Your task to perform on an android device: set the stopwatch Image 0: 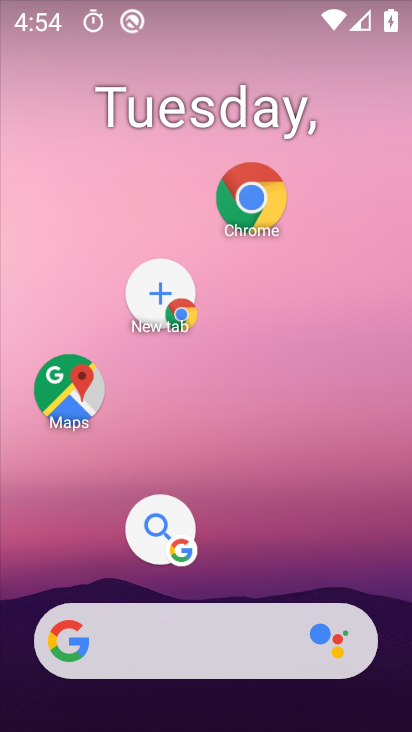
Step 0: drag from (219, 602) to (316, 244)
Your task to perform on an android device: set the stopwatch Image 1: 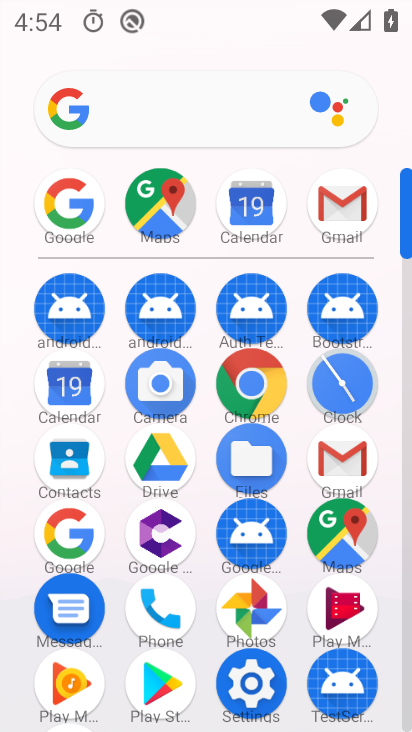
Step 1: click (360, 368)
Your task to perform on an android device: set the stopwatch Image 2: 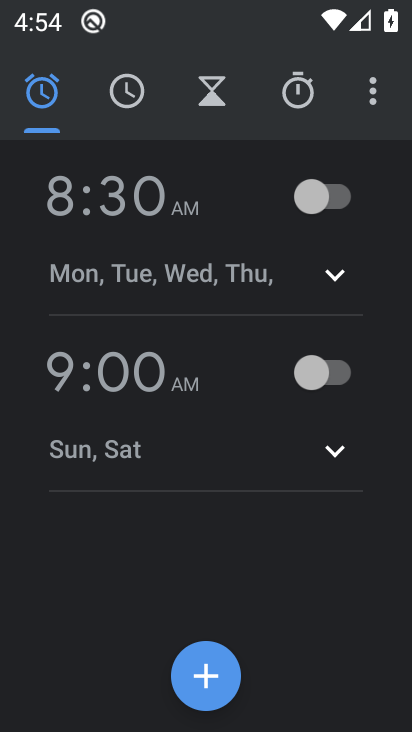
Step 2: click (300, 94)
Your task to perform on an android device: set the stopwatch Image 3: 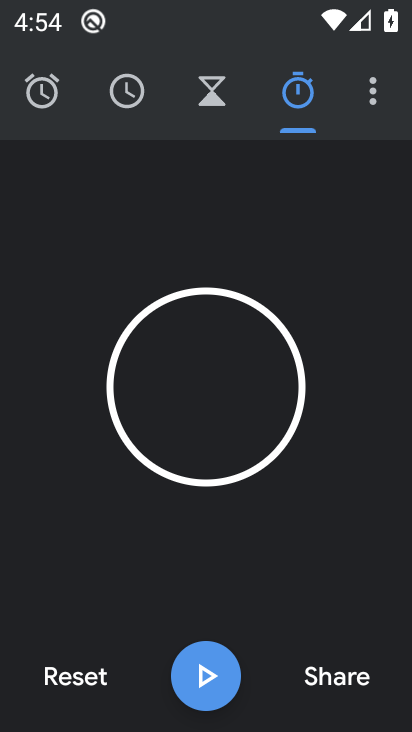
Step 3: click (212, 675)
Your task to perform on an android device: set the stopwatch Image 4: 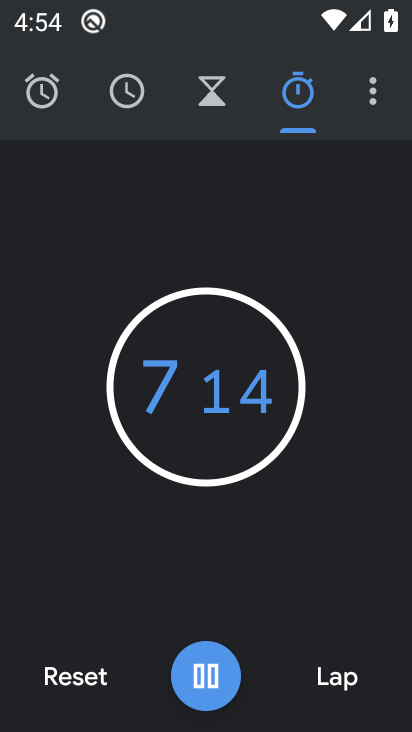
Step 4: click (212, 675)
Your task to perform on an android device: set the stopwatch Image 5: 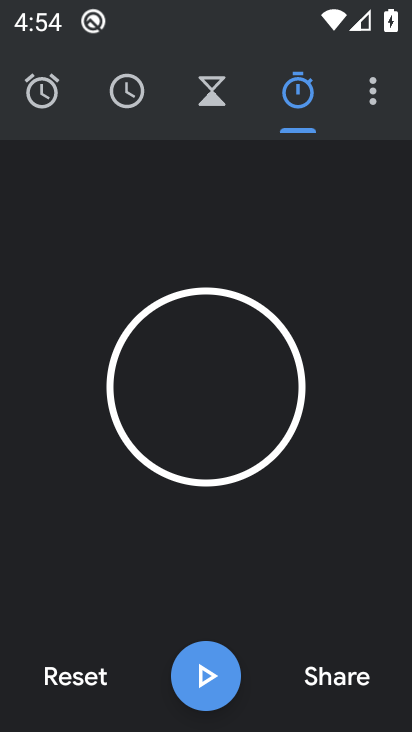
Step 5: task complete